Your task to perform on an android device: delete location history Image 0: 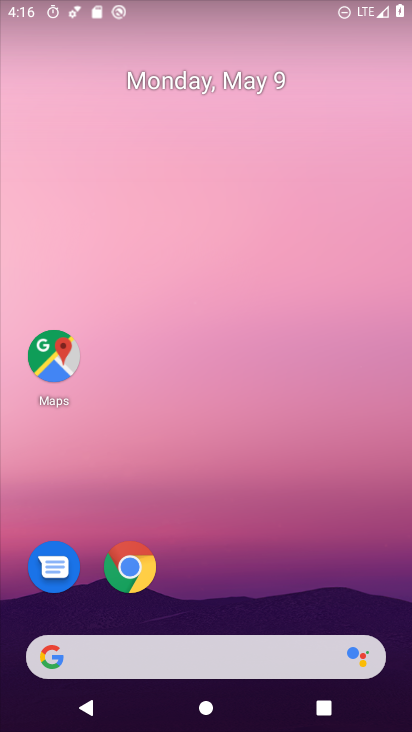
Step 0: drag from (218, 607) to (163, 95)
Your task to perform on an android device: delete location history Image 1: 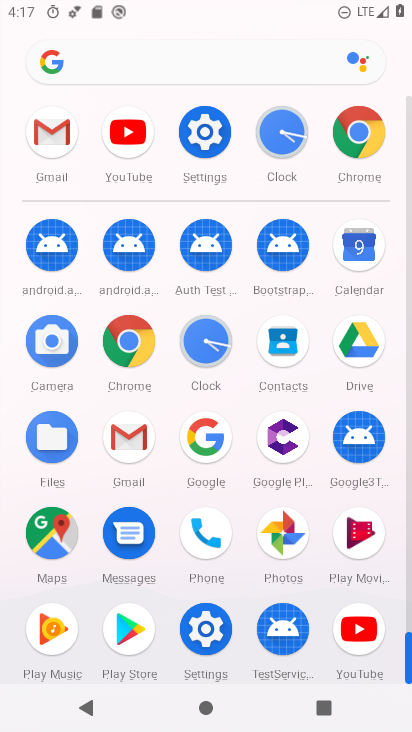
Step 1: click (37, 539)
Your task to perform on an android device: delete location history Image 2: 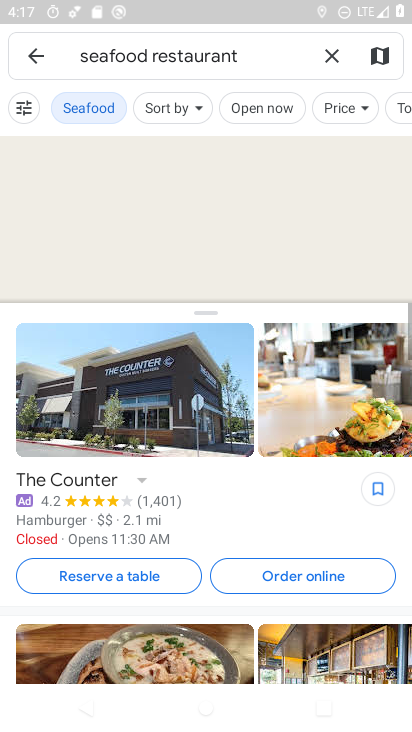
Step 2: click (36, 53)
Your task to perform on an android device: delete location history Image 3: 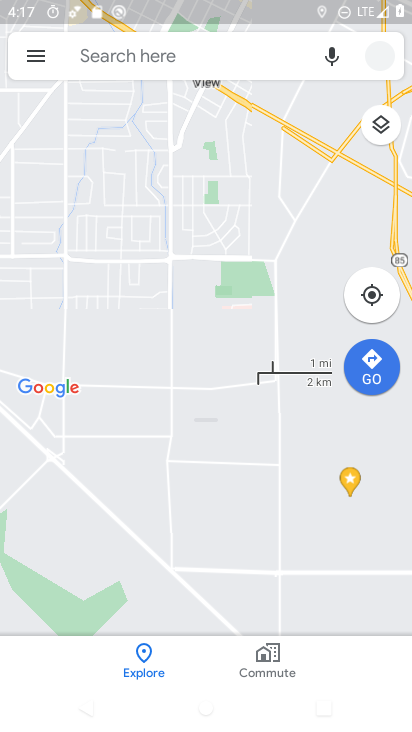
Step 3: click (35, 55)
Your task to perform on an android device: delete location history Image 4: 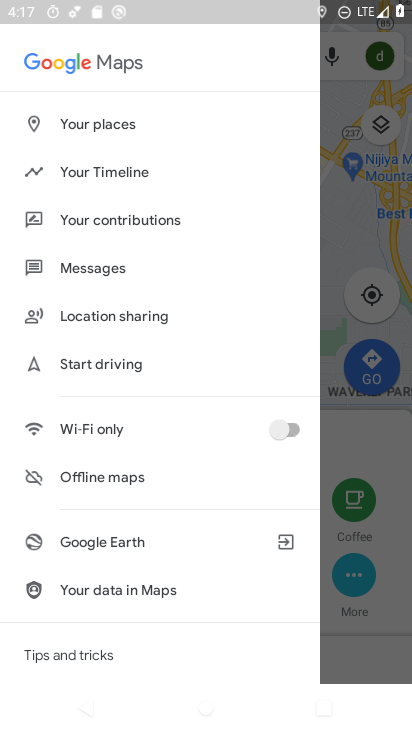
Step 4: click (122, 176)
Your task to perform on an android device: delete location history Image 5: 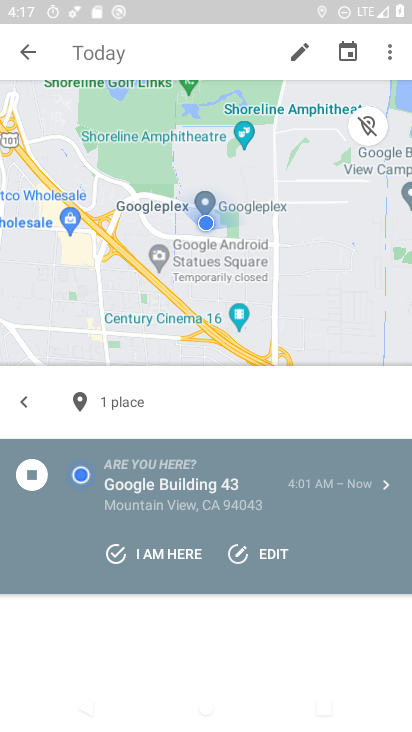
Step 5: click (385, 50)
Your task to perform on an android device: delete location history Image 6: 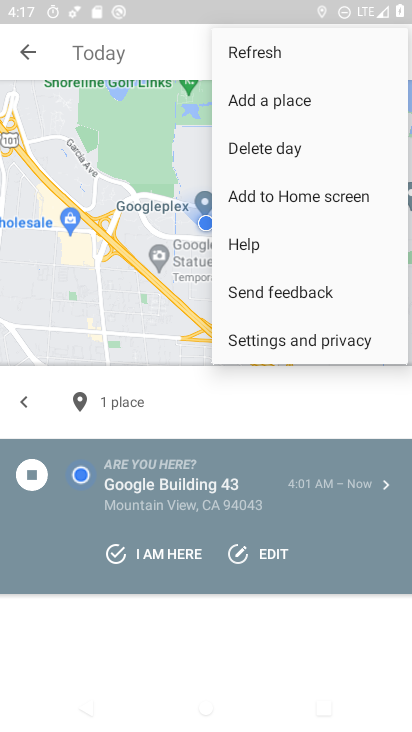
Step 6: click (284, 343)
Your task to perform on an android device: delete location history Image 7: 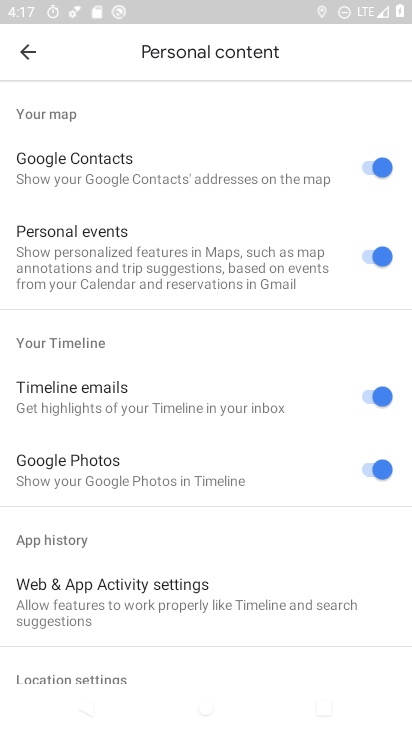
Step 7: drag from (123, 641) to (136, 244)
Your task to perform on an android device: delete location history Image 8: 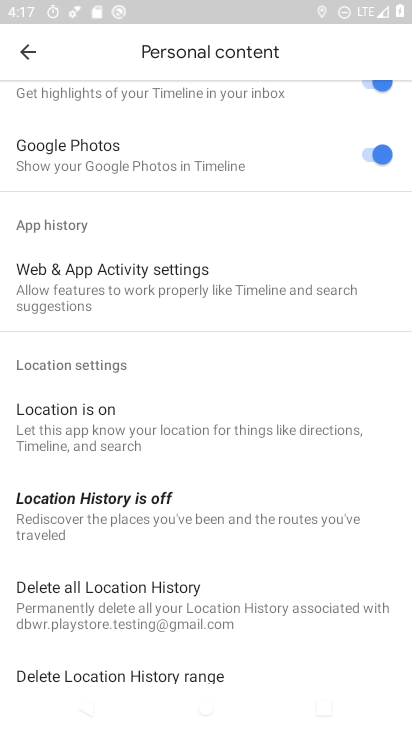
Step 8: click (193, 592)
Your task to perform on an android device: delete location history Image 9: 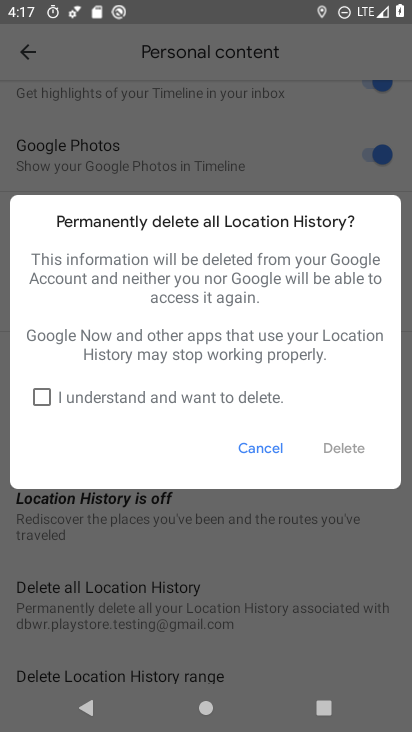
Step 9: click (50, 393)
Your task to perform on an android device: delete location history Image 10: 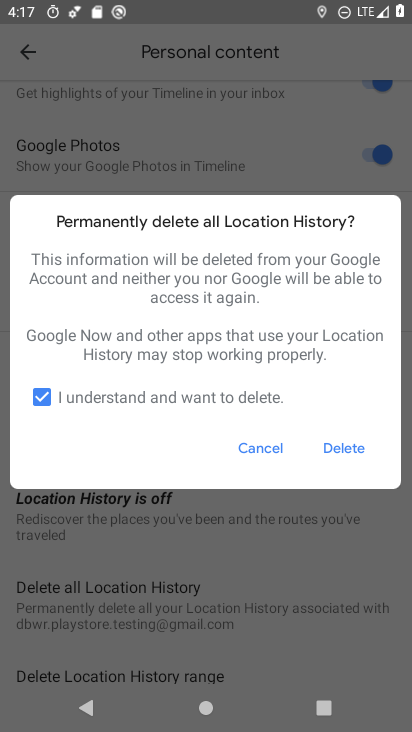
Step 10: click (359, 448)
Your task to perform on an android device: delete location history Image 11: 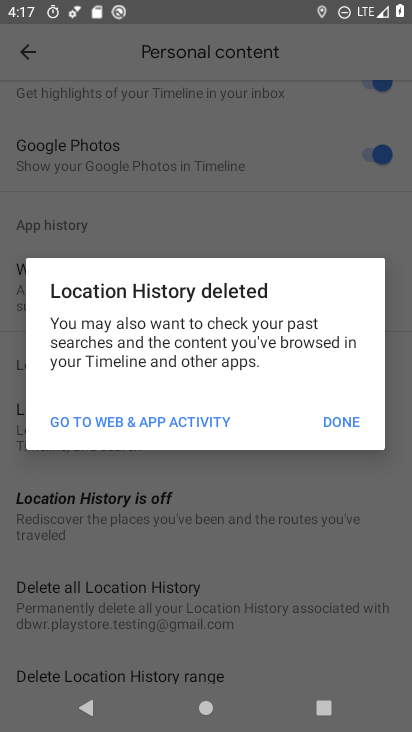
Step 11: click (348, 405)
Your task to perform on an android device: delete location history Image 12: 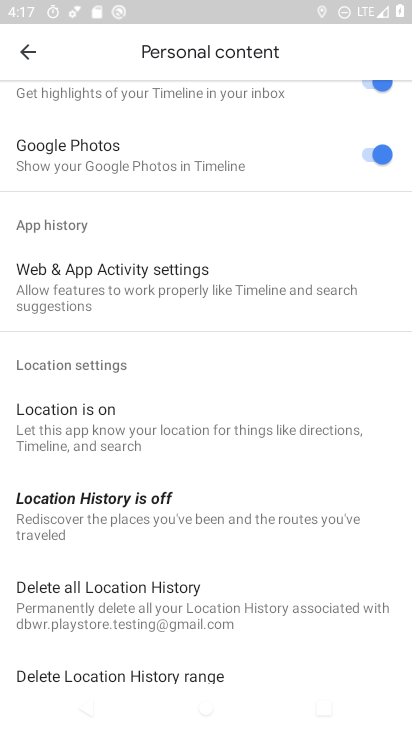
Step 12: task complete